Your task to perform on an android device: Open the stopwatch Image 0: 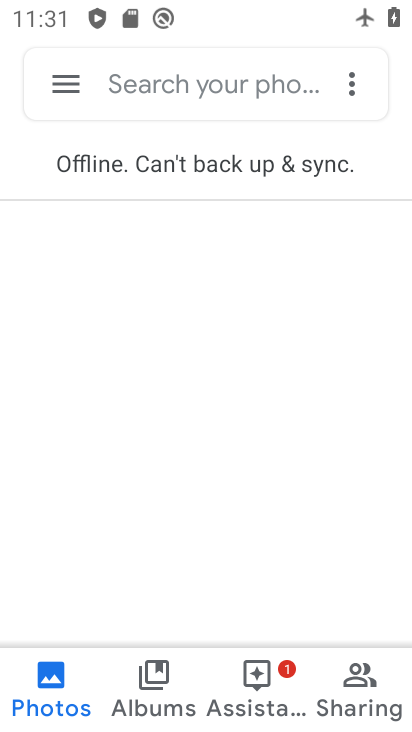
Step 0: drag from (387, 628) to (351, 264)
Your task to perform on an android device: Open the stopwatch Image 1: 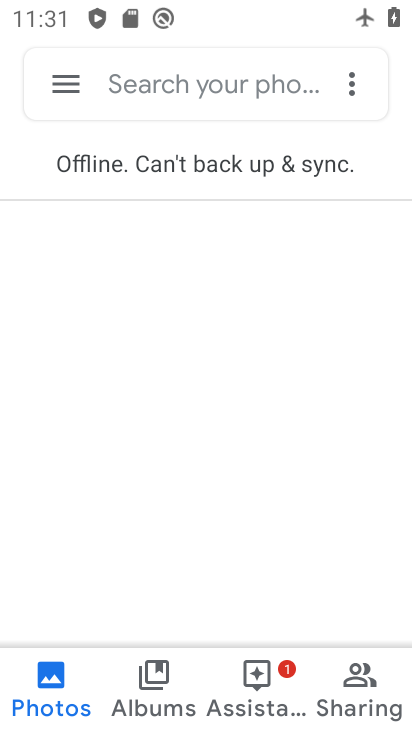
Step 1: press home button
Your task to perform on an android device: Open the stopwatch Image 2: 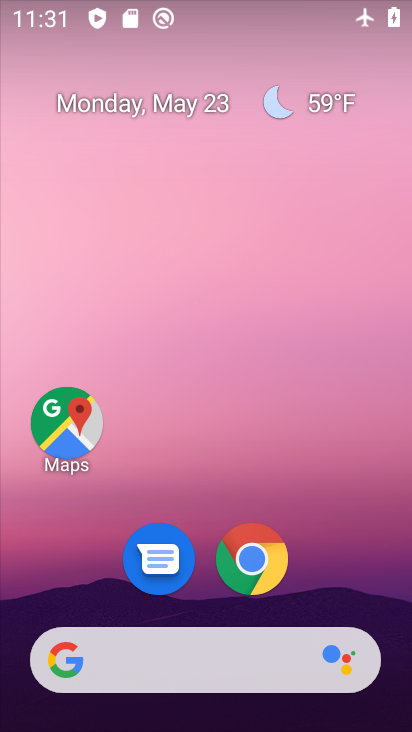
Step 2: drag from (390, 638) to (321, 71)
Your task to perform on an android device: Open the stopwatch Image 3: 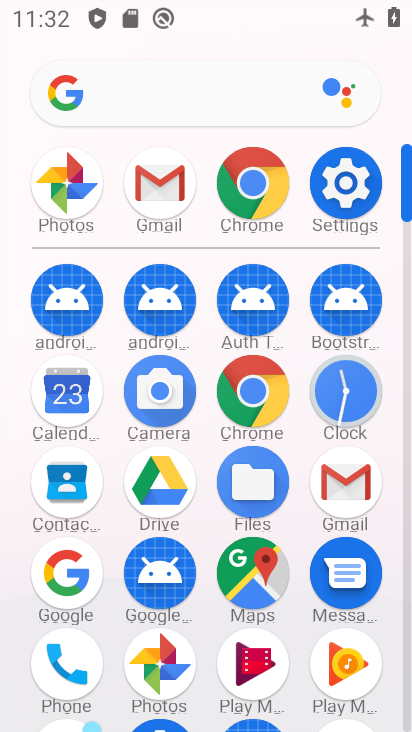
Step 3: click (357, 396)
Your task to perform on an android device: Open the stopwatch Image 4: 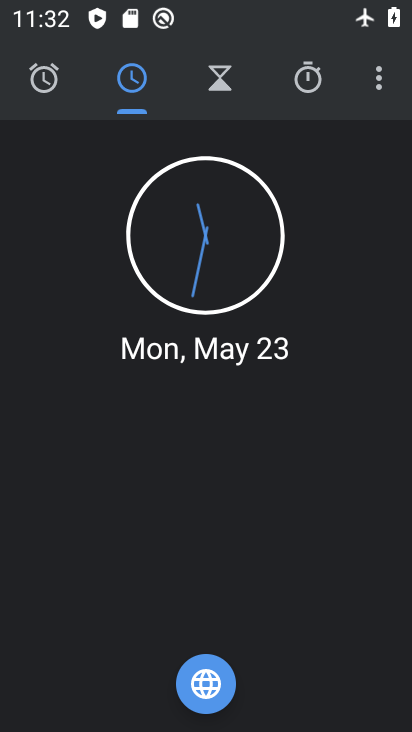
Step 4: click (316, 88)
Your task to perform on an android device: Open the stopwatch Image 5: 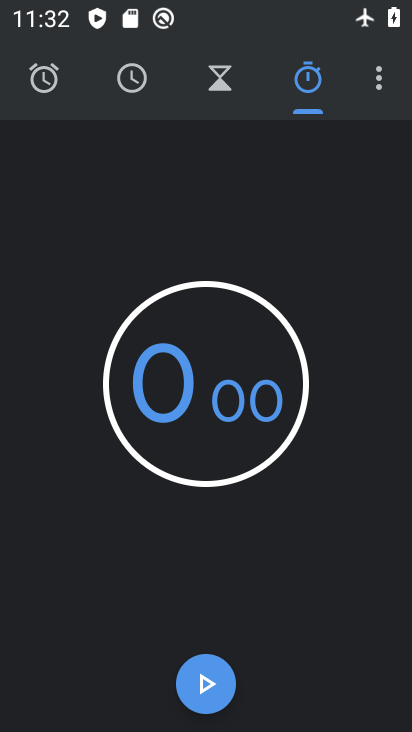
Step 5: task complete